Your task to perform on an android device: install app "DuckDuckGo Privacy Browser" Image 0: 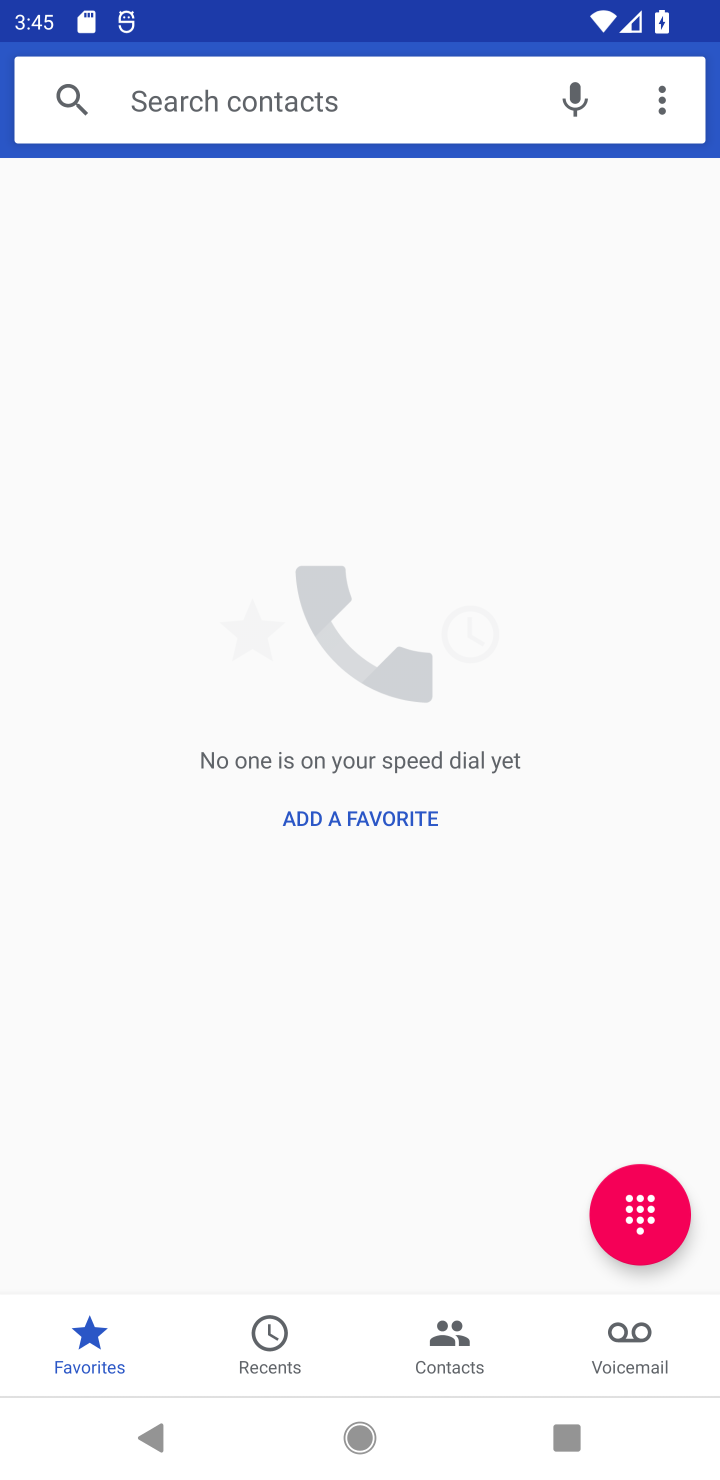
Step 0: press home button
Your task to perform on an android device: install app "DuckDuckGo Privacy Browser" Image 1: 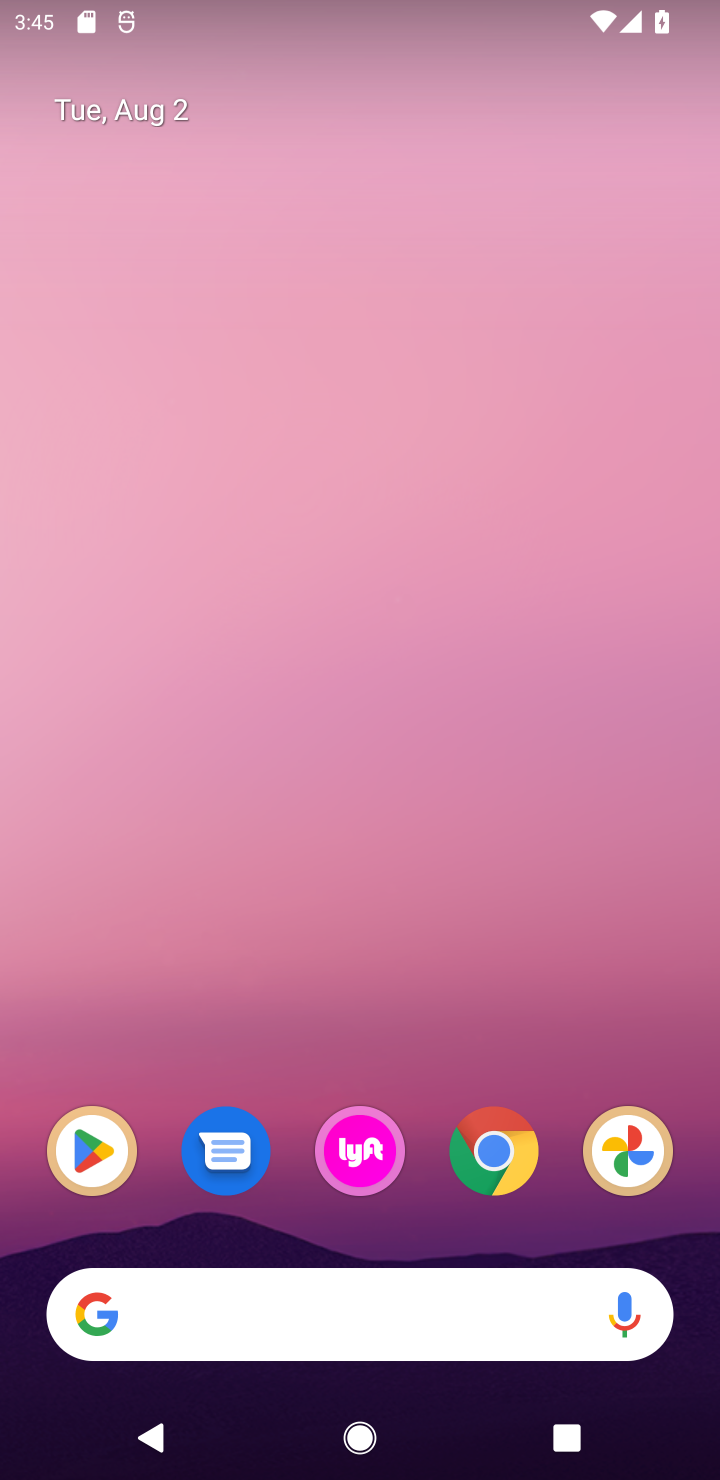
Step 1: drag from (408, 1249) to (391, 468)
Your task to perform on an android device: install app "DuckDuckGo Privacy Browser" Image 2: 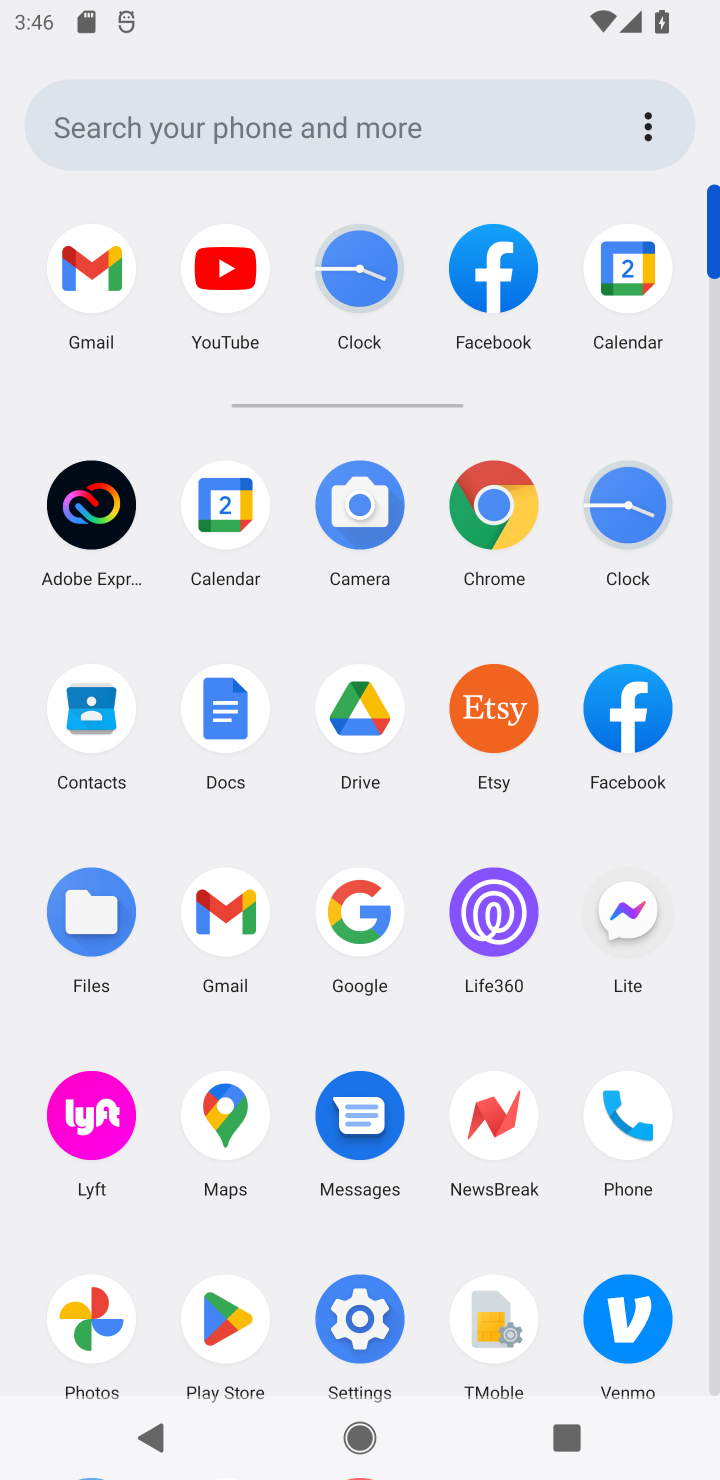
Step 2: click (226, 1314)
Your task to perform on an android device: install app "DuckDuckGo Privacy Browser" Image 3: 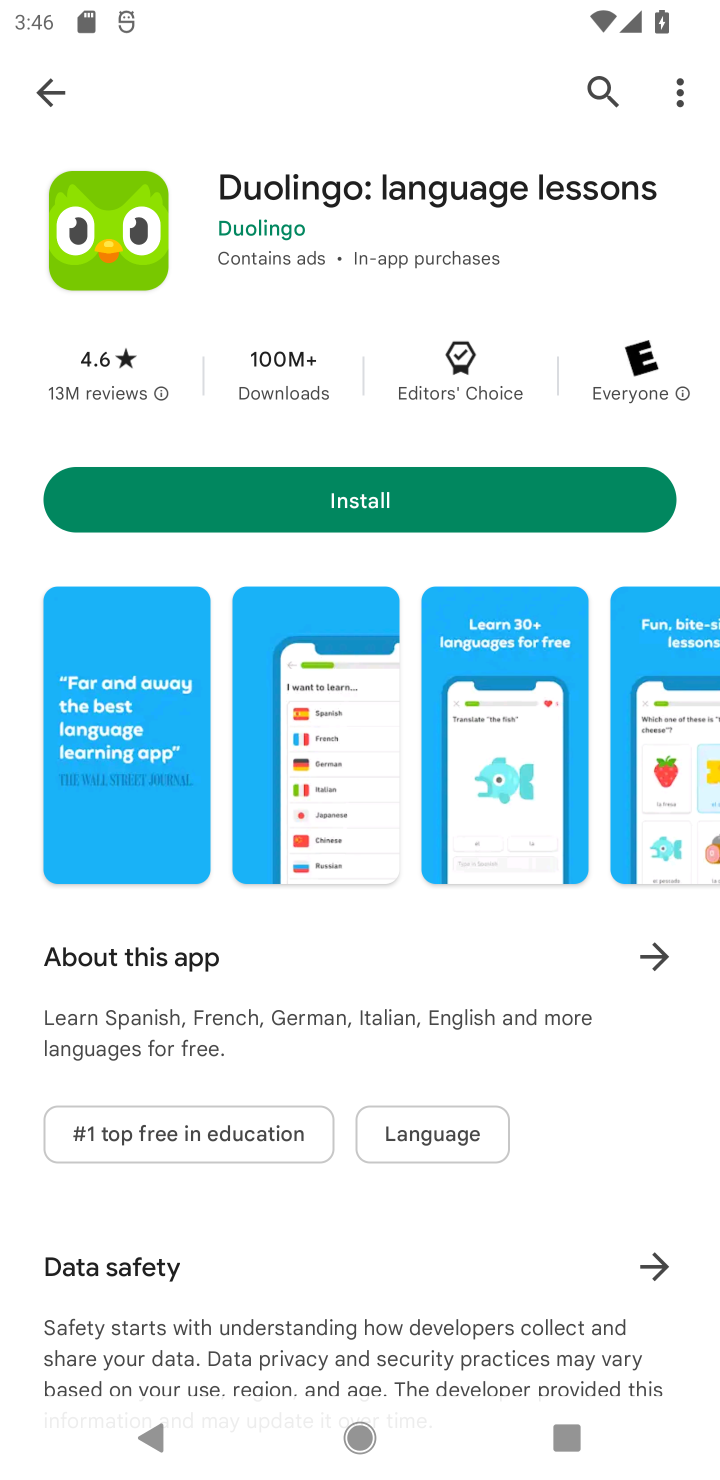
Step 3: click (594, 80)
Your task to perform on an android device: install app "DuckDuckGo Privacy Browser" Image 4: 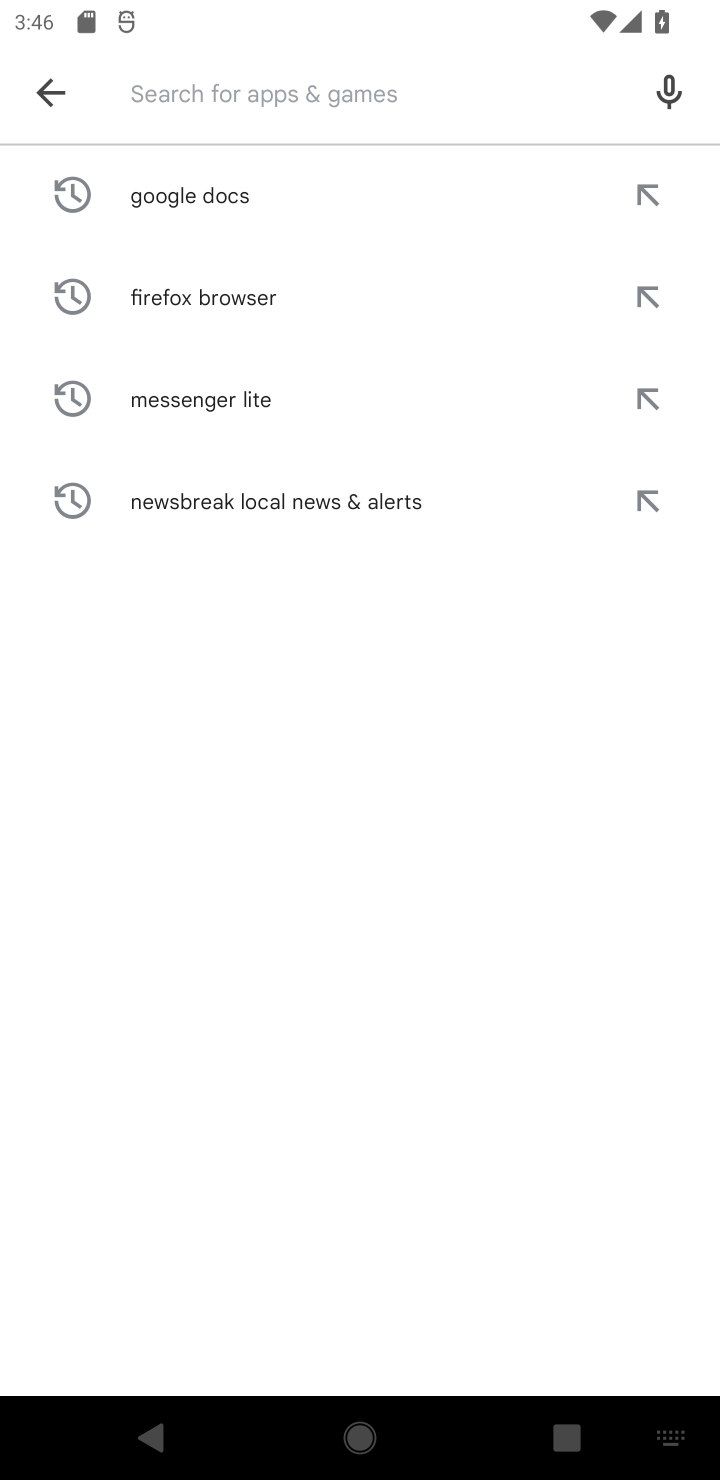
Step 4: type "DuckDuckGo Privacy Browser"
Your task to perform on an android device: install app "DuckDuckGo Privacy Browser" Image 5: 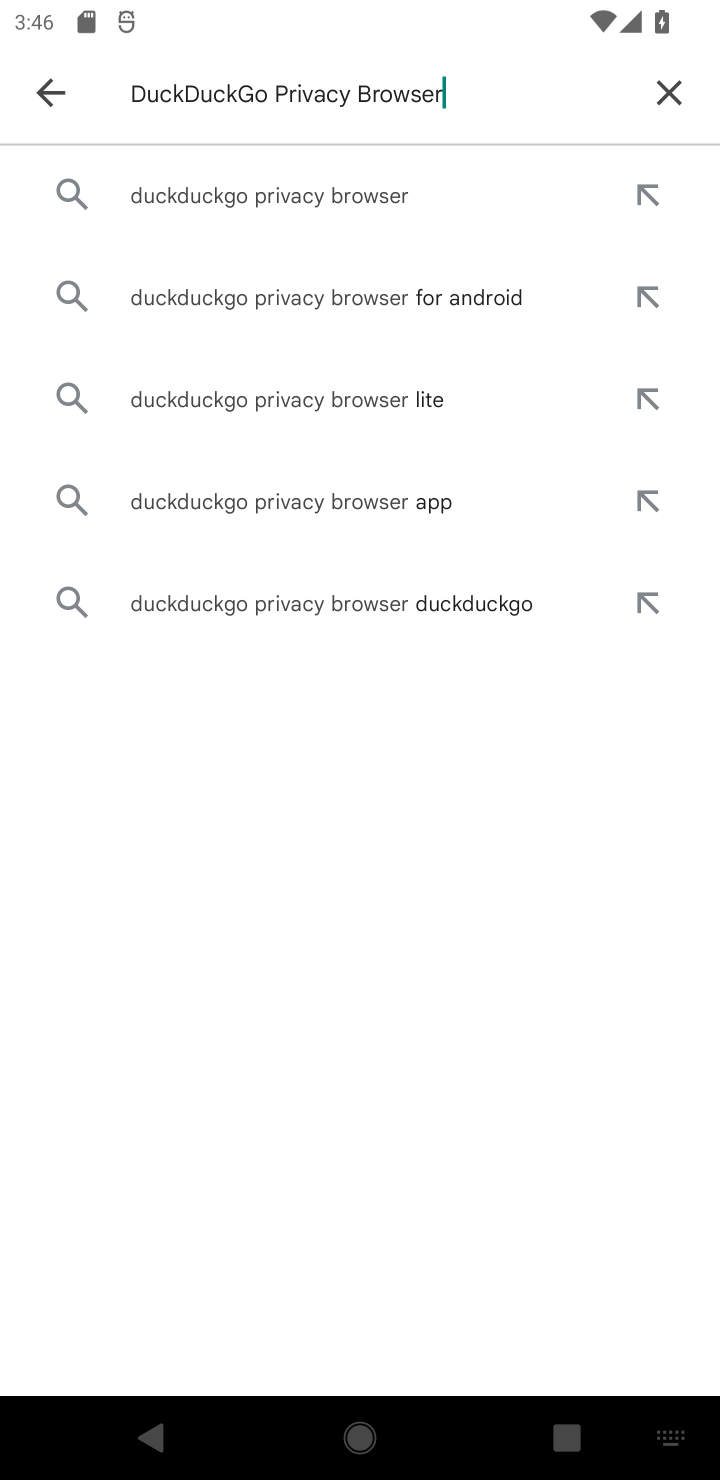
Step 5: click (335, 200)
Your task to perform on an android device: install app "DuckDuckGo Privacy Browser" Image 6: 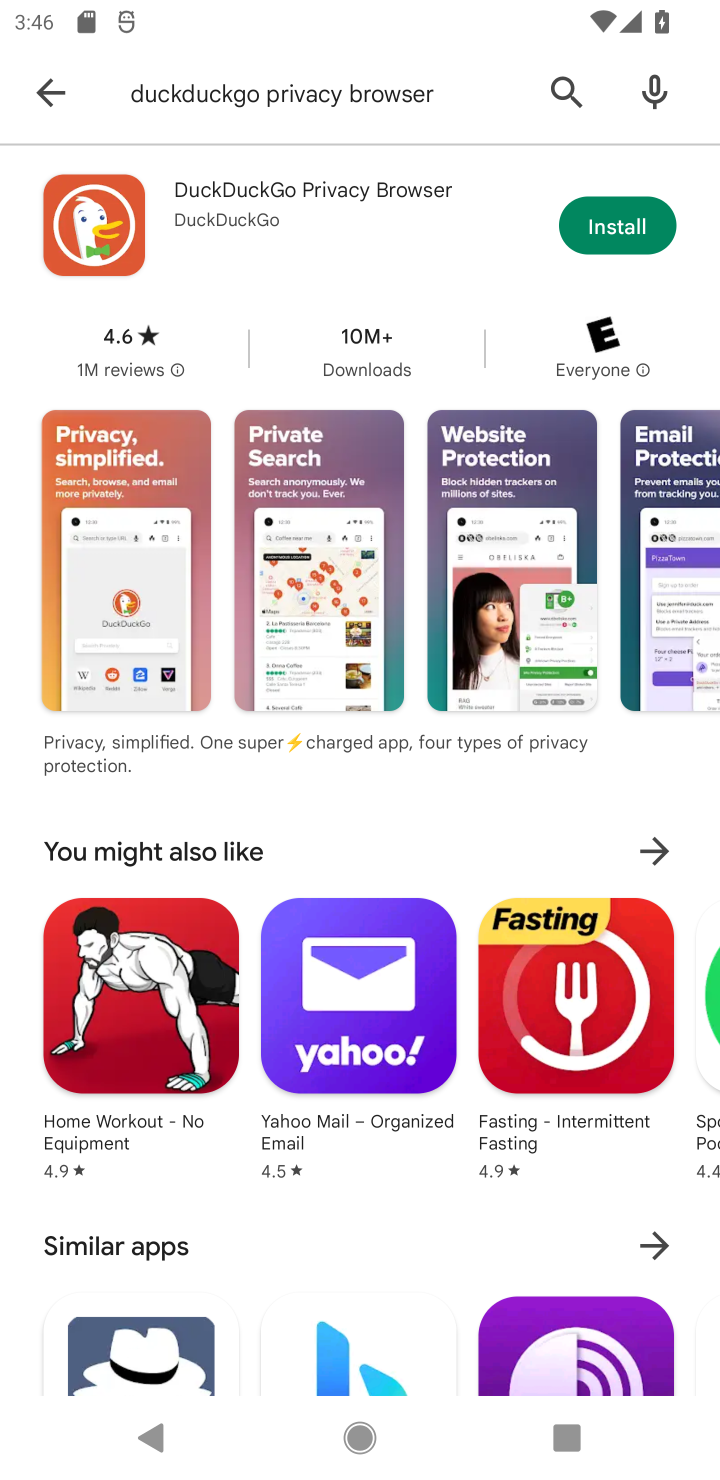
Step 6: click (617, 216)
Your task to perform on an android device: install app "DuckDuckGo Privacy Browser" Image 7: 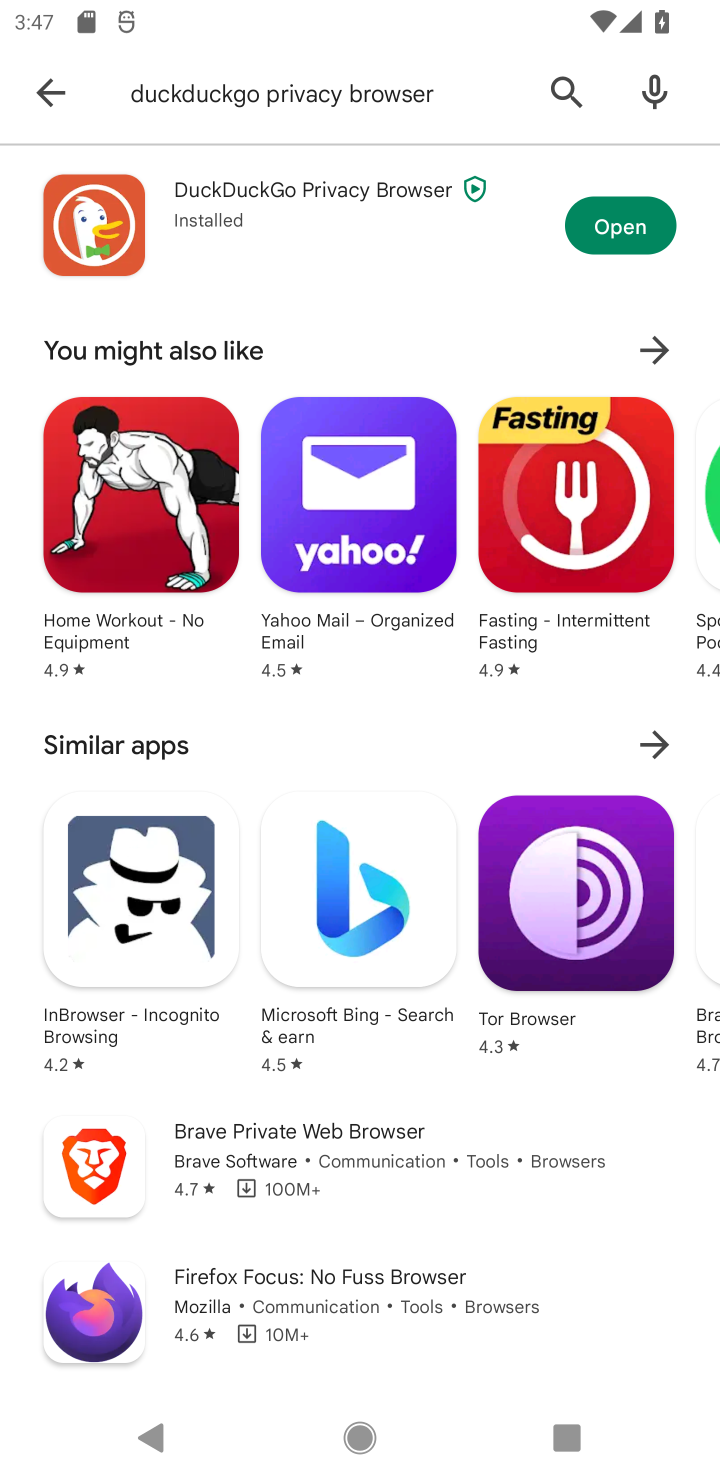
Step 7: task complete